Your task to perform on an android device: toggle show notifications on the lock screen Image 0: 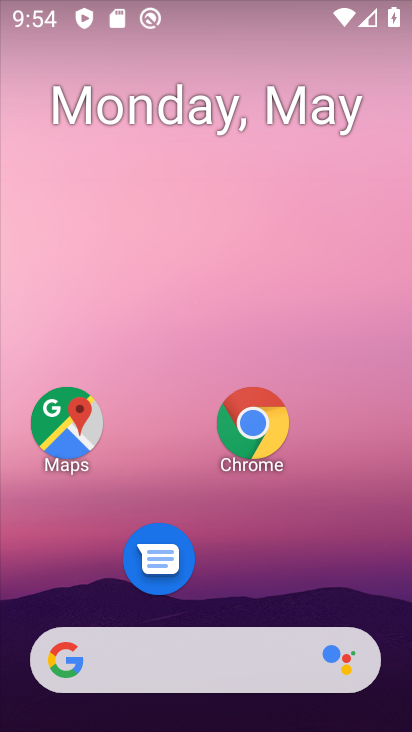
Step 0: drag from (209, 607) to (212, 131)
Your task to perform on an android device: toggle show notifications on the lock screen Image 1: 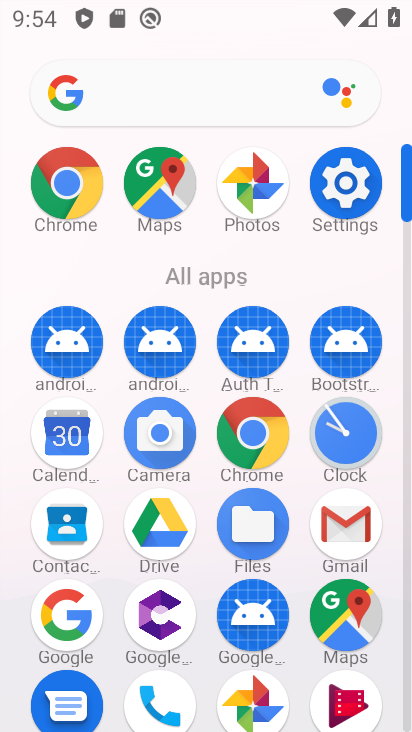
Step 1: click (360, 189)
Your task to perform on an android device: toggle show notifications on the lock screen Image 2: 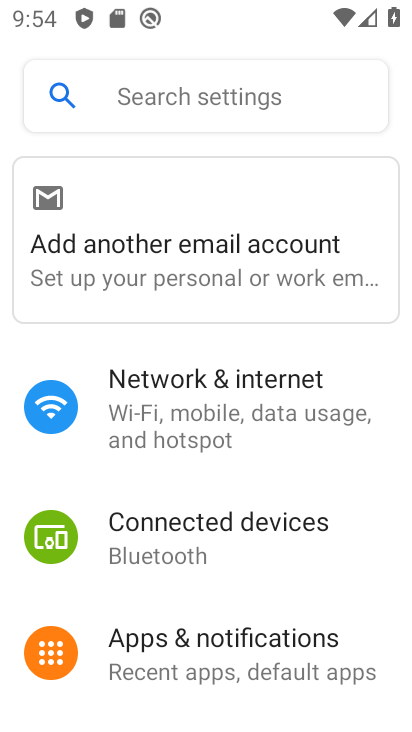
Step 2: click (184, 661)
Your task to perform on an android device: toggle show notifications on the lock screen Image 3: 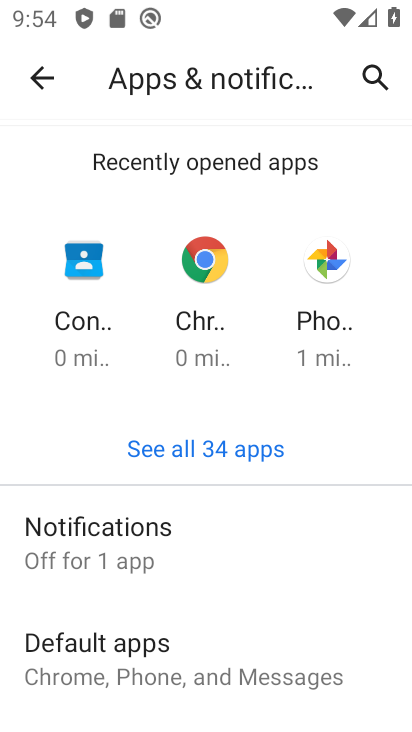
Step 3: click (134, 560)
Your task to perform on an android device: toggle show notifications on the lock screen Image 4: 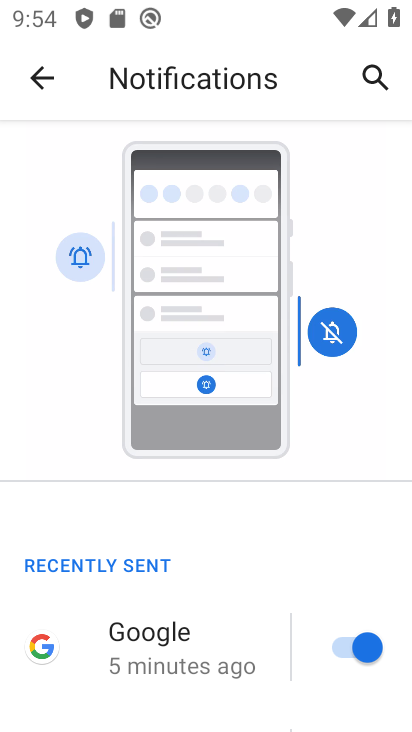
Step 4: drag from (157, 647) to (259, 128)
Your task to perform on an android device: toggle show notifications on the lock screen Image 5: 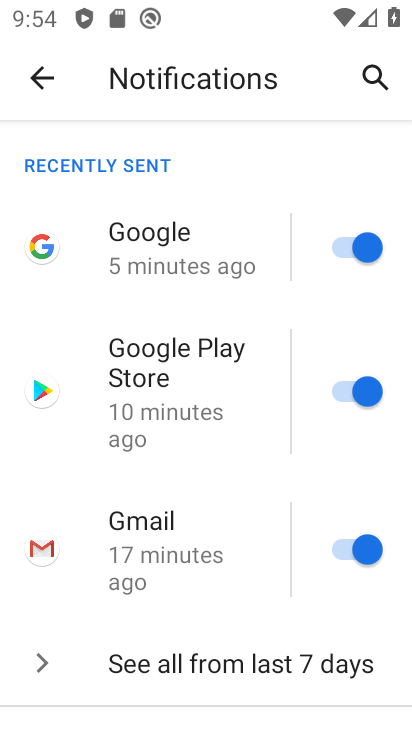
Step 5: drag from (121, 644) to (190, 119)
Your task to perform on an android device: toggle show notifications on the lock screen Image 6: 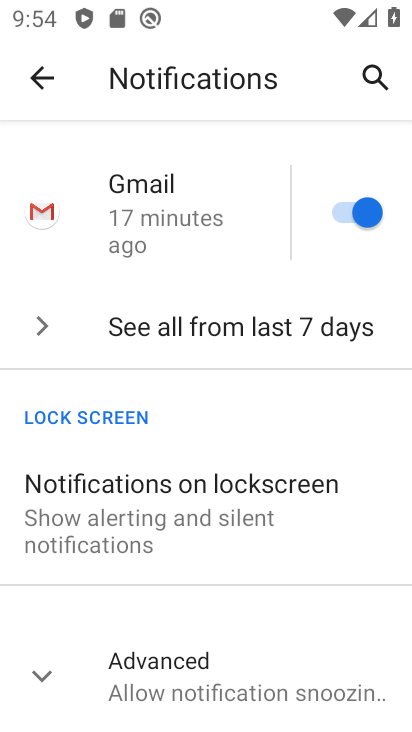
Step 6: click (163, 514)
Your task to perform on an android device: toggle show notifications on the lock screen Image 7: 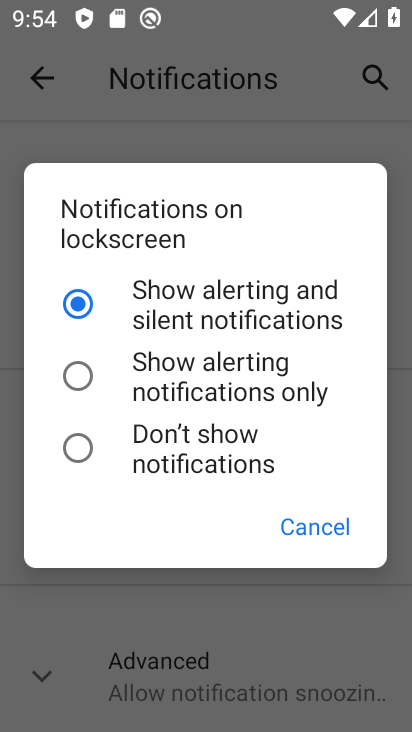
Step 7: task complete